Your task to perform on an android device: Go to Amazon Image 0: 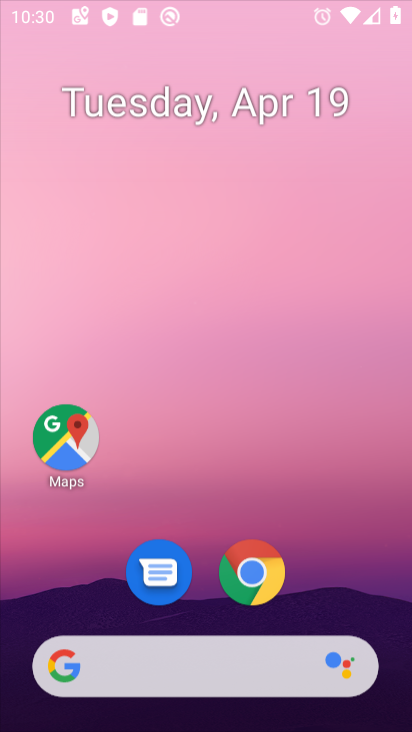
Step 0: drag from (314, 426) to (384, 283)
Your task to perform on an android device: Go to Amazon Image 1: 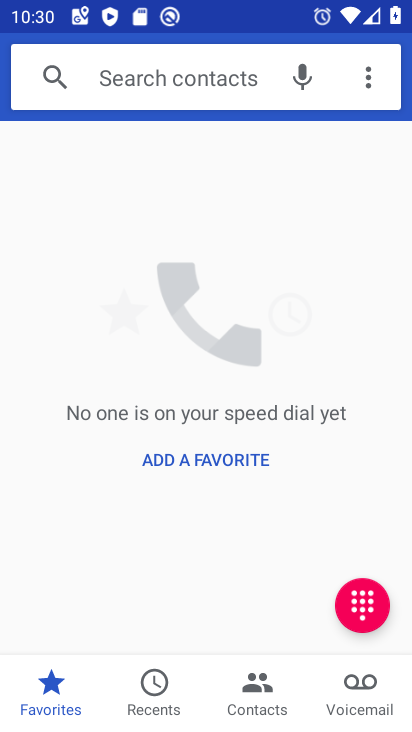
Step 1: press home button
Your task to perform on an android device: Go to Amazon Image 2: 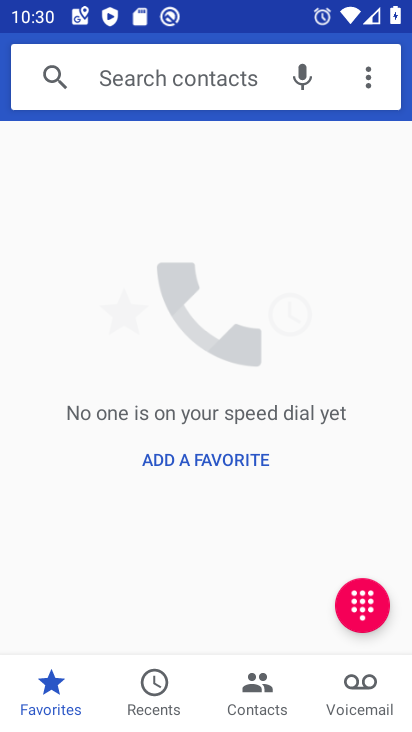
Step 2: drag from (384, 283) to (411, 417)
Your task to perform on an android device: Go to Amazon Image 3: 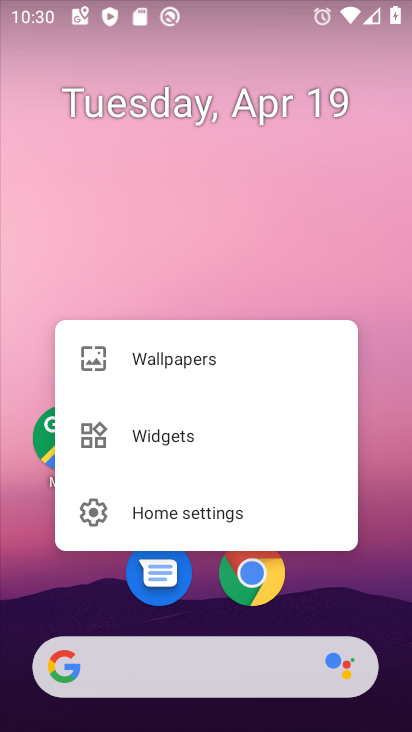
Step 3: click (343, 582)
Your task to perform on an android device: Go to Amazon Image 4: 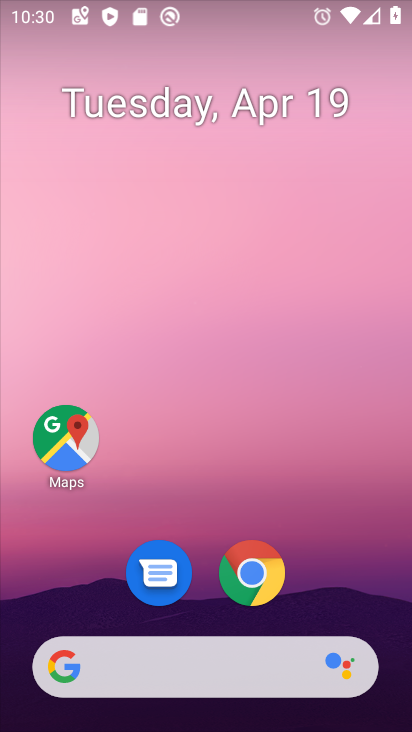
Step 4: click (278, 572)
Your task to perform on an android device: Go to Amazon Image 5: 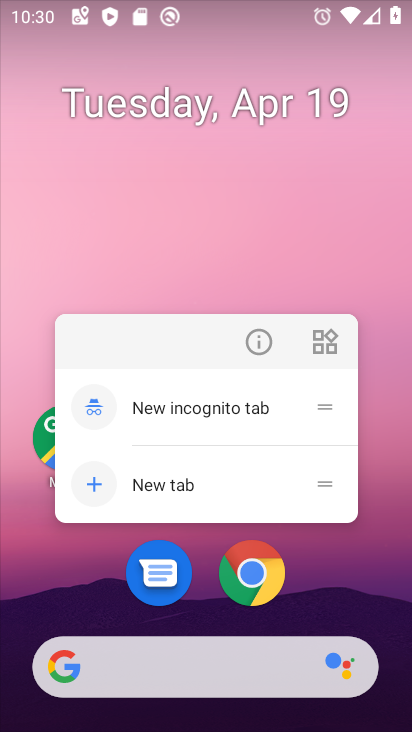
Step 5: click (249, 573)
Your task to perform on an android device: Go to Amazon Image 6: 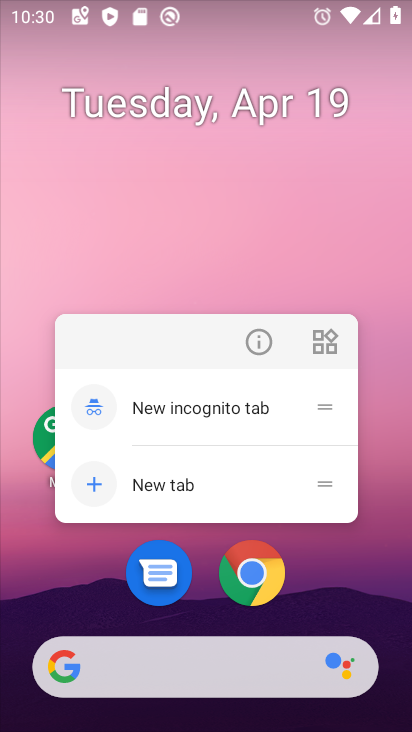
Step 6: click (249, 573)
Your task to perform on an android device: Go to Amazon Image 7: 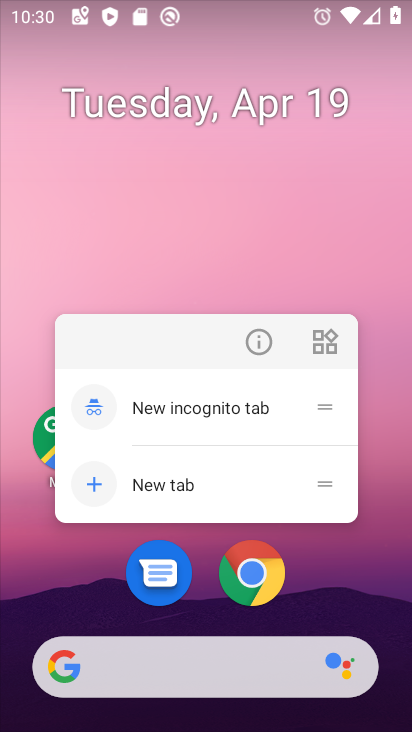
Step 7: click (249, 573)
Your task to perform on an android device: Go to Amazon Image 8: 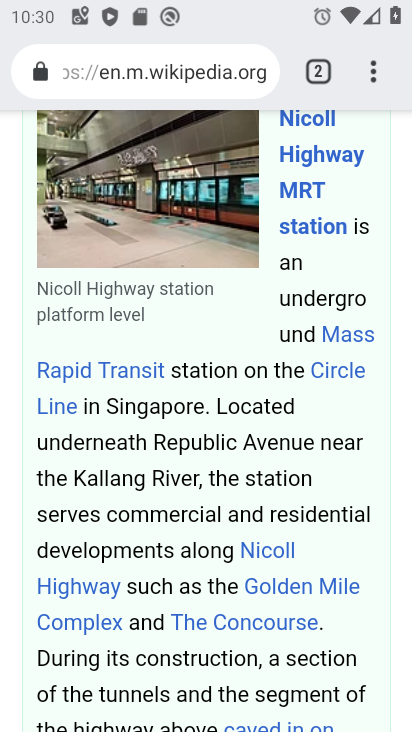
Step 8: click (319, 76)
Your task to perform on an android device: Go to Amazon Image 9: 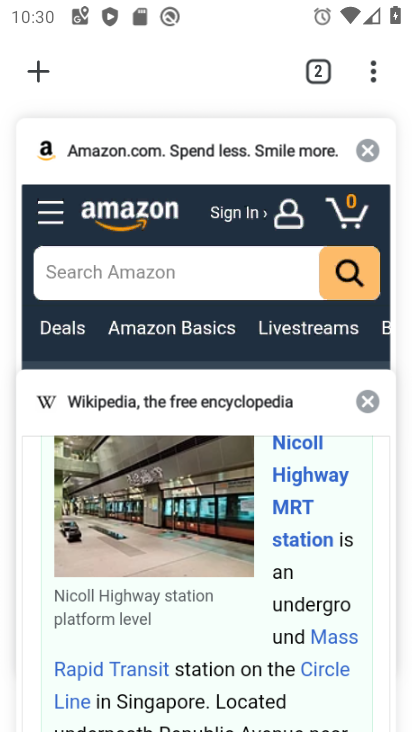
Step 9: click (127, 147)
Your task to perform on an android device: Go to Amazon Image 10: 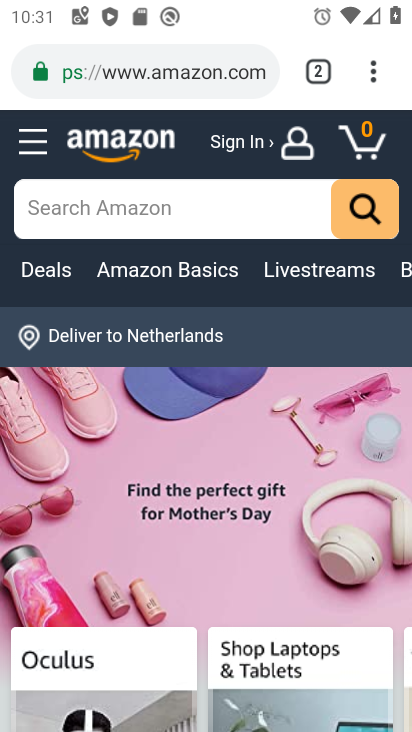
Step 10: task complete